Your task to perform on an android device: remove spam from my inbox in the gmail app Image 0: 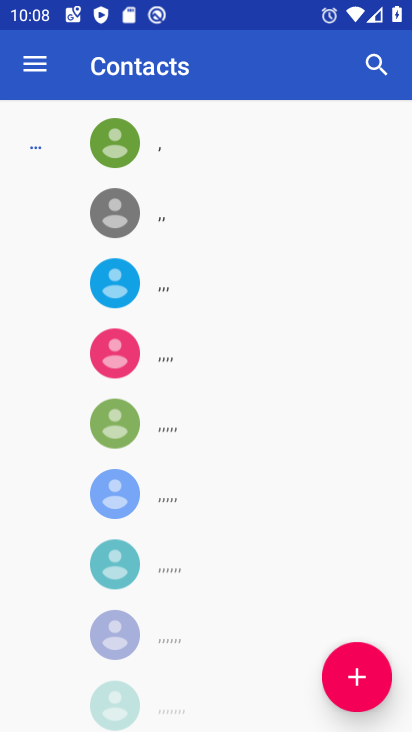
Step 0: press home button
Your task to perform on an android device: remove spam from my inbox in the gmail app Image 1: 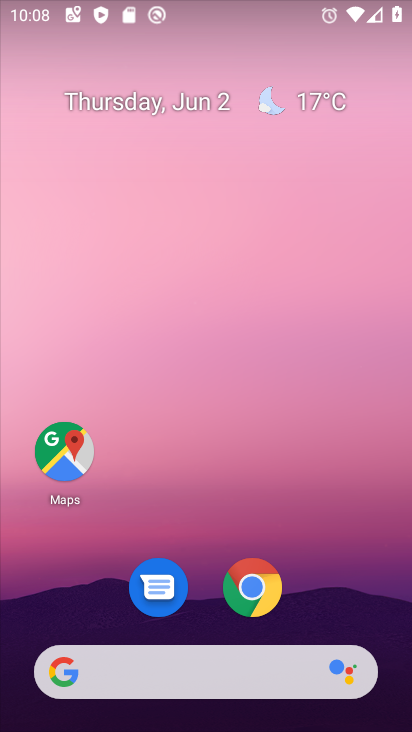
Step 1: drag from (206, 622) to (262, 111)
Your task to perform on an android device: remove spam from my inbox in the gmail app Image 2: 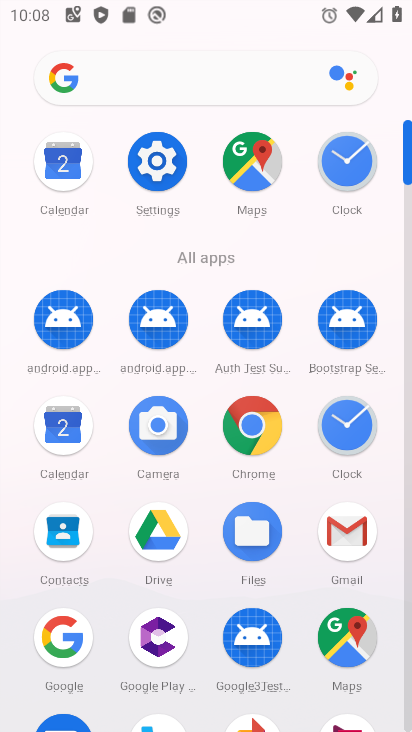
Step 2: click (345, 523)
Your task to perform on an android device: remove spam from my inbox in the gmail app Image 3: 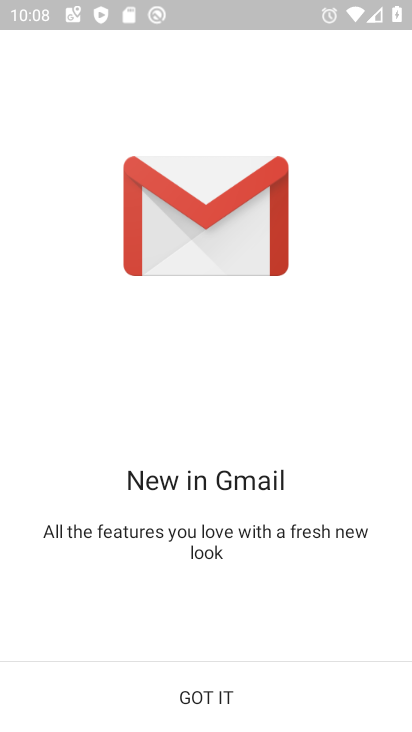
Step 3: click (202, 704)
Your task to perform on an android device: remove spam from my inbox in the gmail app Image 4: 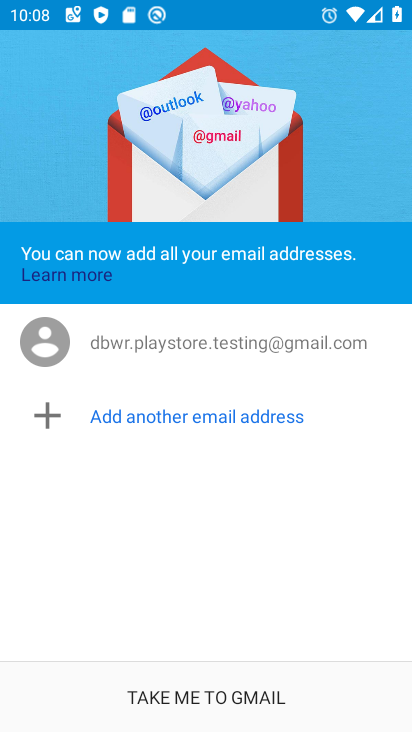
Step 4: click (199, 708)
Your task to perform on an android device: remove spam from my inbox in the gmail app Image 5: 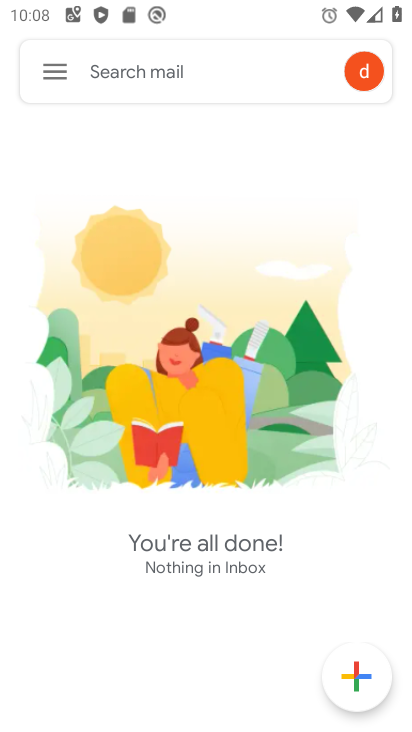
Step 5: click (50, 68)
Your task to perform on an android device: remove spam from my inbox in the gmail app Image 6: 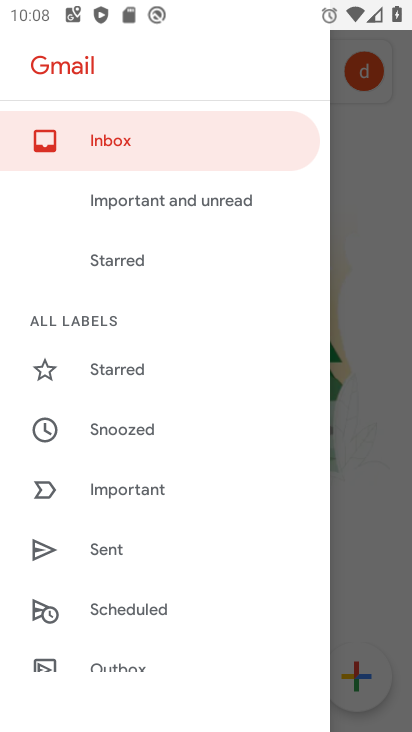
Step 6: drag from (160, 643) to (205, 176)
Your task to perform on an android device: remove spam from my inbox in the gmail app Image 7: 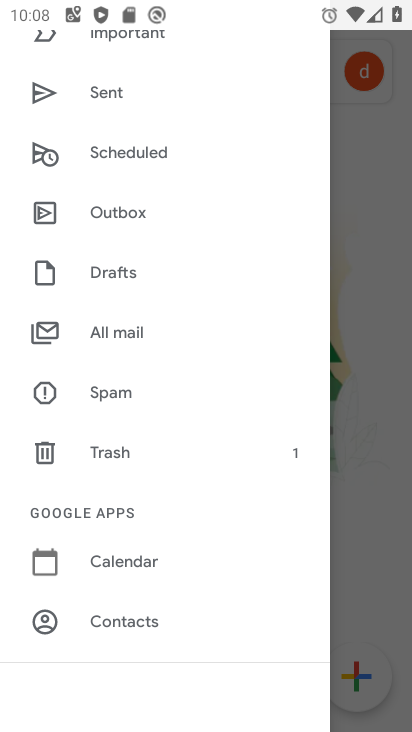
Step 7: drag from (146, 626) to (170, 248)
Your task to perform on an android device: remove spam from my inbox in the gmail app Image 8: 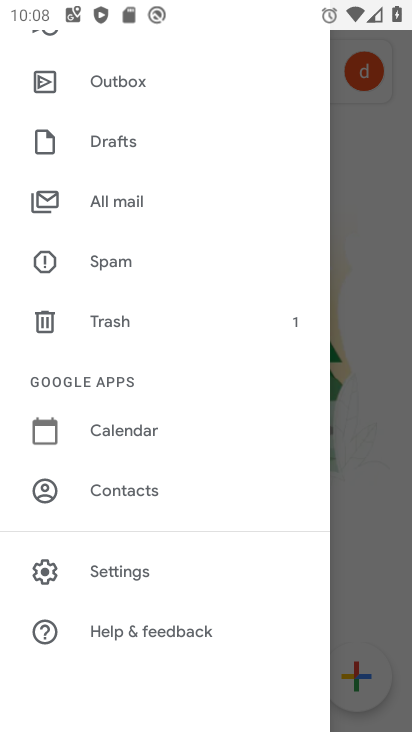
Step 8: click (162, 558)
Your task to perform on an android device: remove spam from my inbox in the gmail app Image 9: 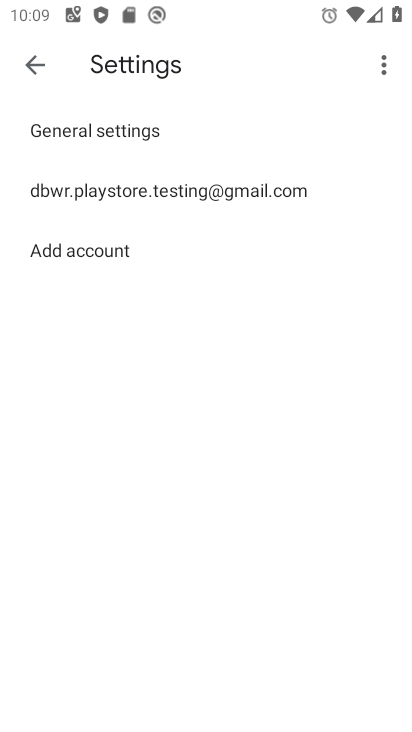
Step 9: click (37, 65)
Your task to perform on an android device: remove spam from my inbox in the gmail app Image 10: 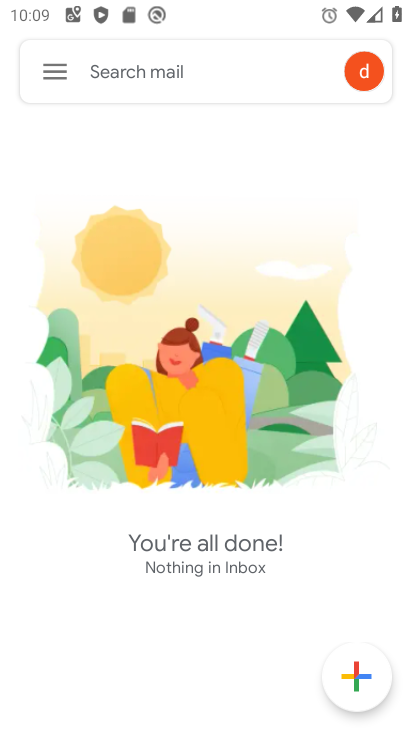
Step 10: click (57, 69)
Your task to perform on an android device: remove spam from my inbox in the gmail app Image 11: 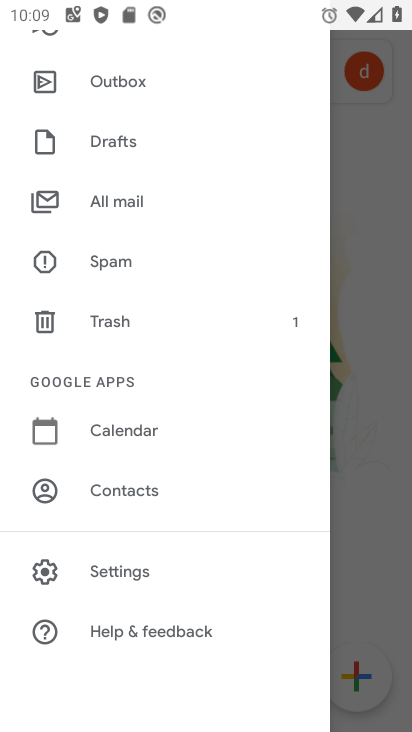
Step 11: click (78, 256)
Your task to perform on an android device: remove spam from my inbox in the gmail app Image 12: 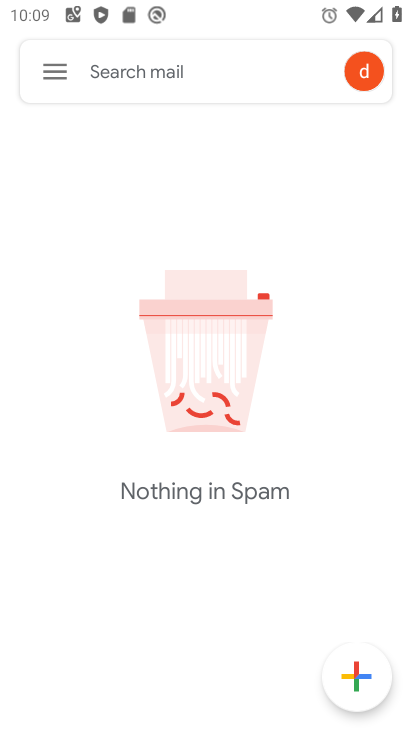
Step 12: task complete